Your task to perform on an android device: Go to Wikipedia Image 0: 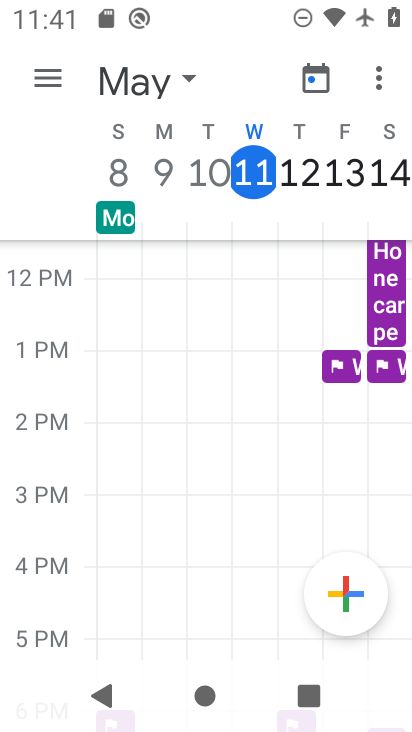
Step 0: press back button
Your task to perform on an android device: Go to Wikipedia Image 1: 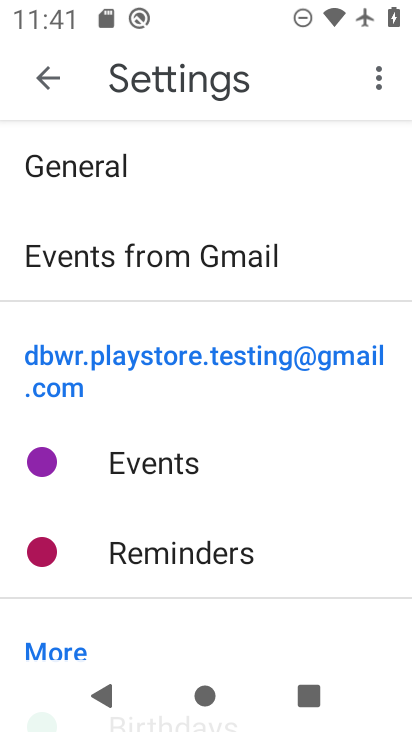
Step 1: press back button
Your task to perform on an android device: Go to Wikipedia Image 2: 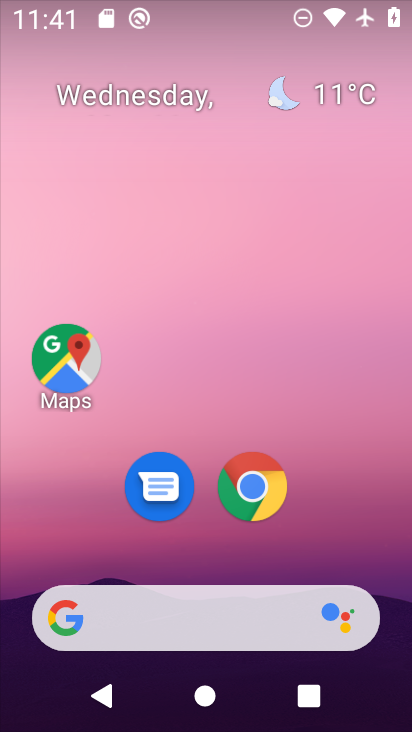
Step 2: drag from (331, 534) to (269, 68)
Your task to perform on an android device: Go to Wikipedia Image 3: 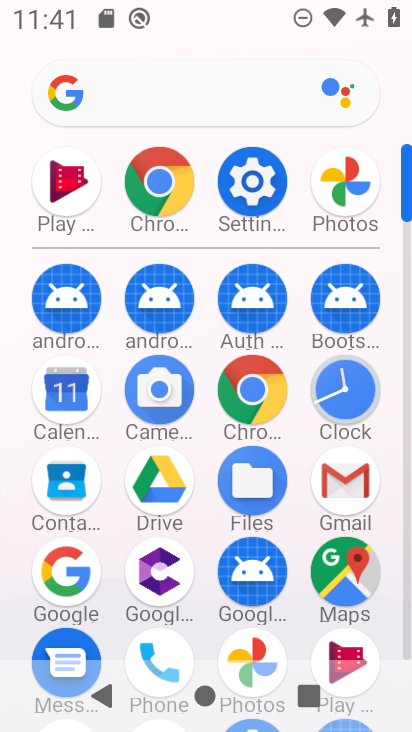
Step 3: click (249, 384)
Your task to perform on an android device: Go to Wikipedia Image 4: 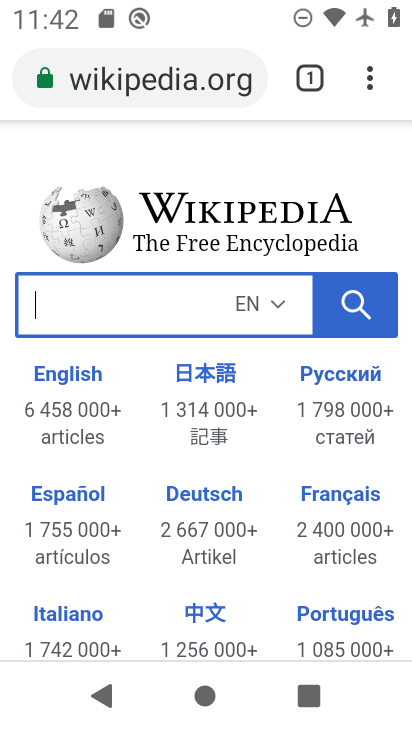
Step 4: task complete